Your task to perform on an android device: Go to Maps Image 0: 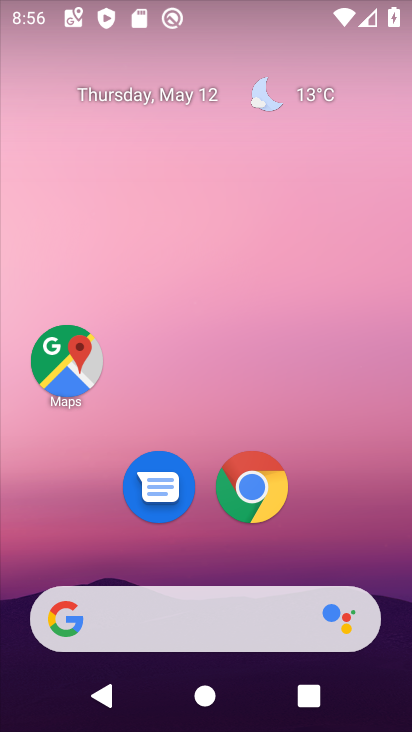
Step 0: click (67, 369)
Your task to perform on an android device: Go to Maps Image 1: 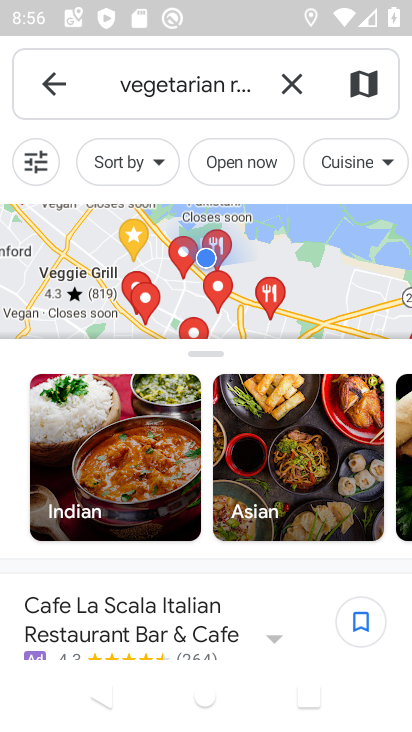
Step 1: task complete